Your task to perform on an android device: Open Wikipedia Image 0: 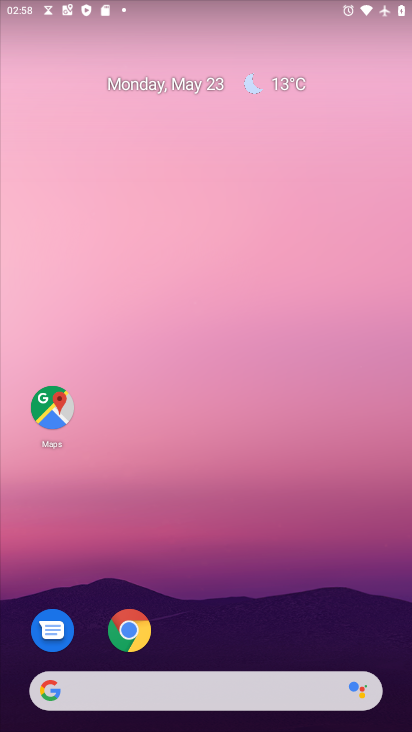
Step 0: click (126, 622)
Your task to perform on an android device: Open Wikipedia Image 1: 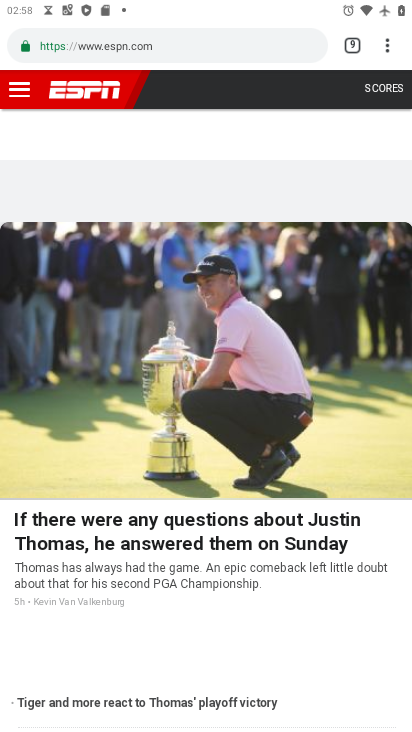
Step 1: click (345, 38)
Your task to perform on an android device: Open Wikipedia Image 2: 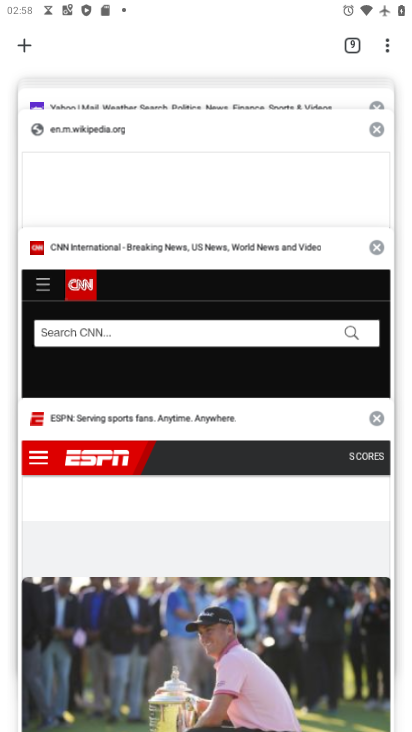
Step 2: drag from (209, 142) to (168, 544)
Your task to perform on an android device: Open Wikipedia Image 3: 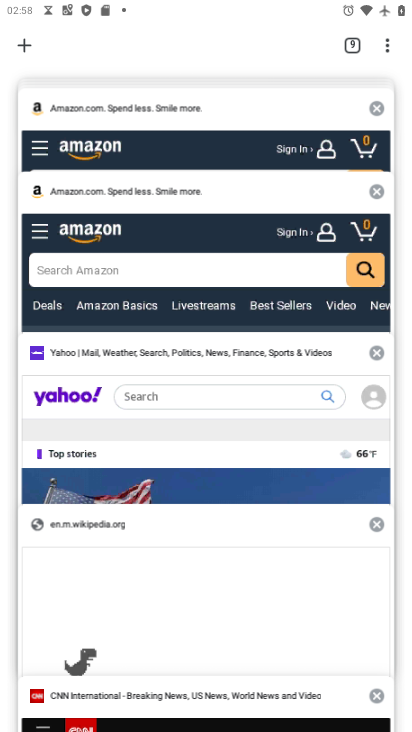
Step 3: drag from (194, 186) to (158, 598)
Your task to perform on an android device: Open Wikipedia Image 4: 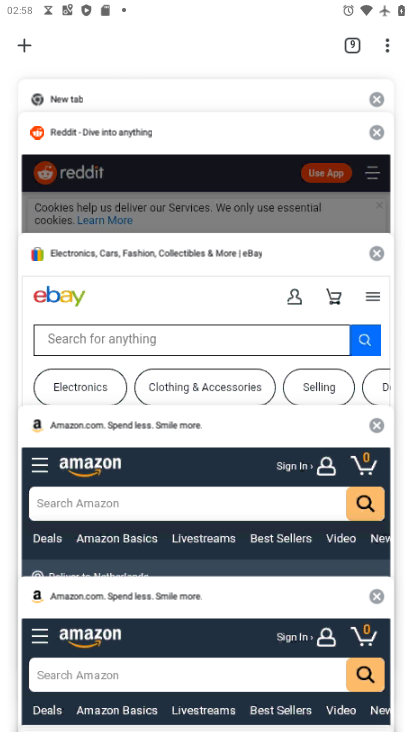
Step 4: click (72, 93)
Your task to perform on an android device: Open Wikipedia Image 5: 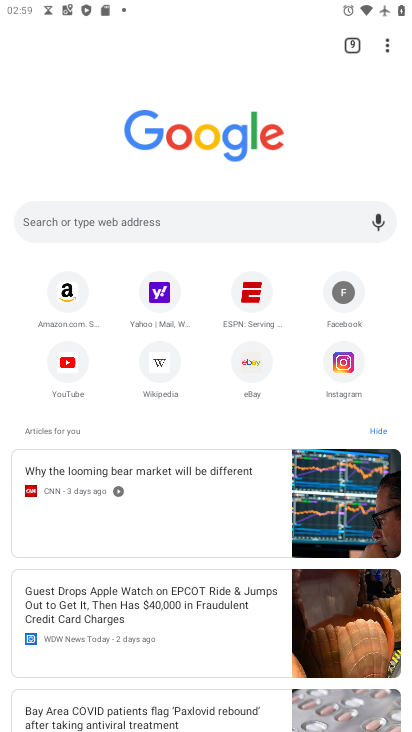
Step 5: click (162, 360)
Your task to perform on an android device: Open Wikipedia Image 6: 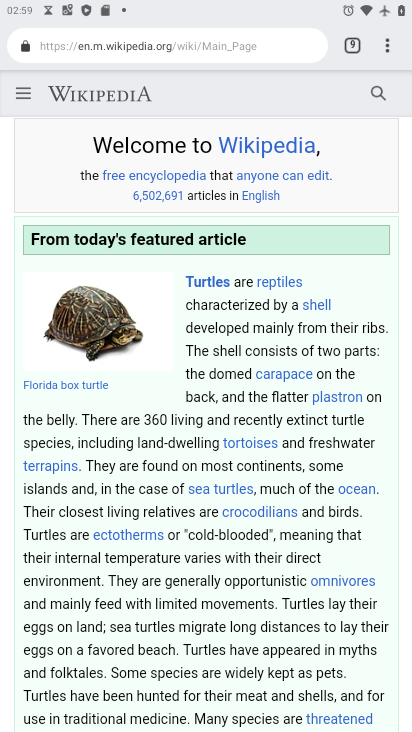
Step 6: task complete